Your task to perform on an android device: add a contact in the contacts app Image 0: 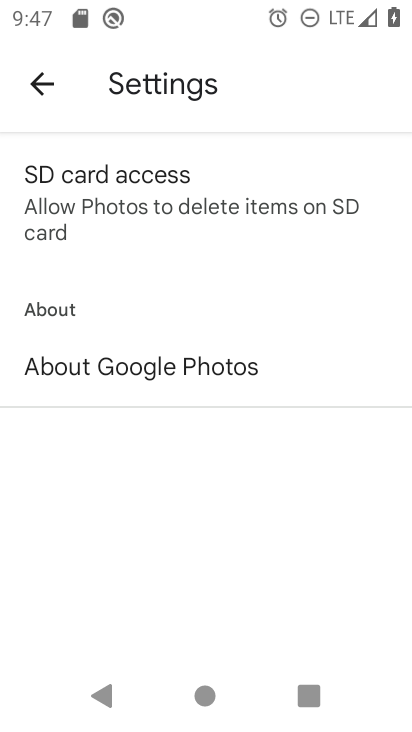
Step 0: press home button
Your task to perform on an android device: add a contact in the contacts app Image 1: 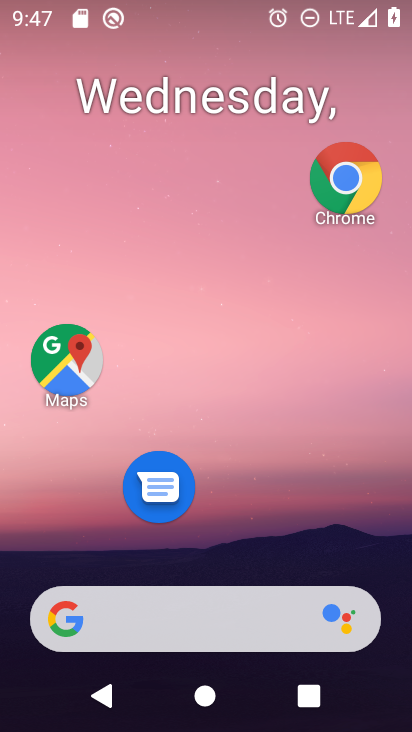
Step 1: drag from (179, 601) to (187, 40)
Your task to perform on an android device: add a contact in the contacts app Image 2: 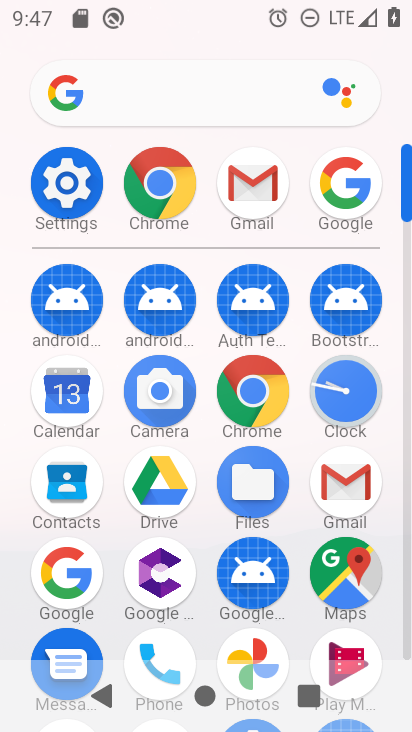
Step 2: drag from (220, 477) to (227, 148)
Your task to perform on an android device: add a contact in the contacts app Image 3: 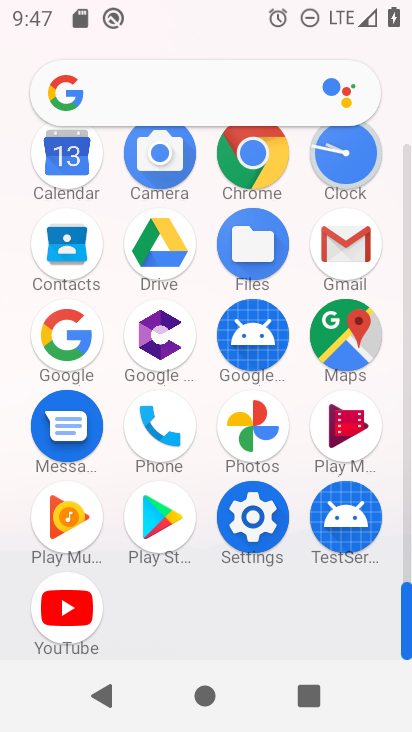
Step 3: click (51, 260)
Your task to perform on an android device: add a contact in the contacts app Image 4: 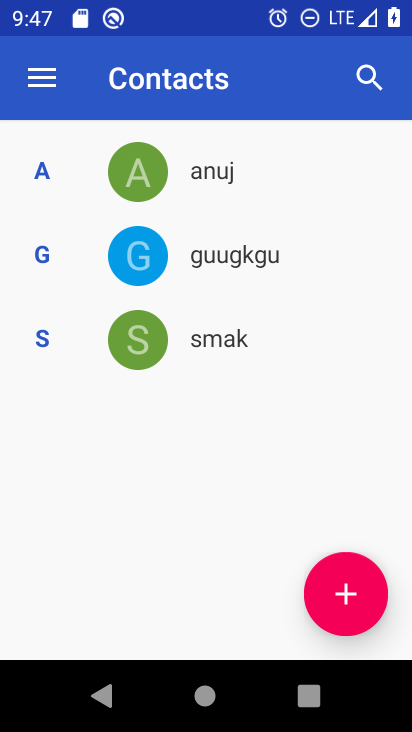
Step 4: click (351, 596)
Your task to perform on an android device: add a contact in the contacts app Image 5: 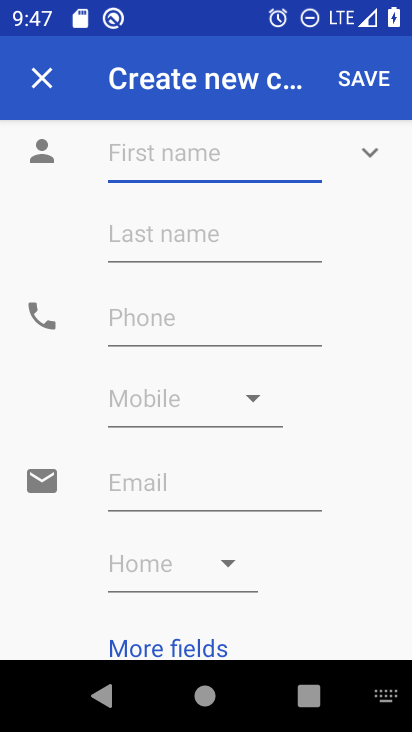
Step 5: type "kufyufrju"
Your task to perform on an android device: add a contact in the contacts app Image 6: 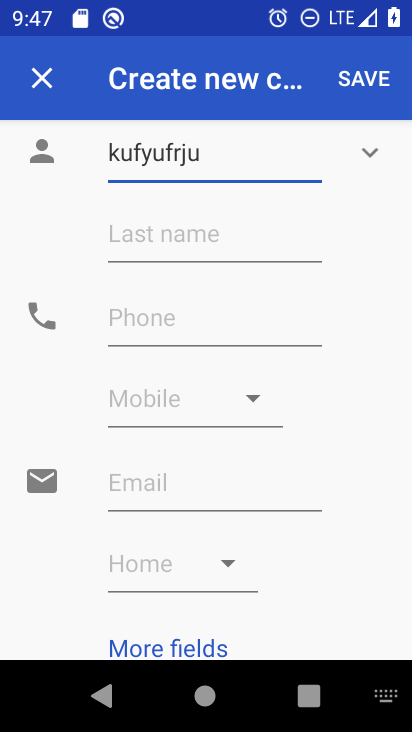
Step 6: click (267, 332)
Your task to perform on an android device: add a contact in the contacts app Image 7: 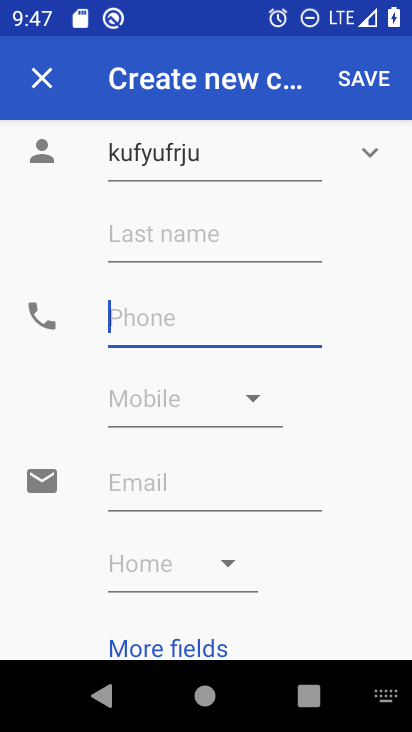
Step 7: type "9065537696"
Your task to perform on an android device: add a contact in the contacts app Image 8: 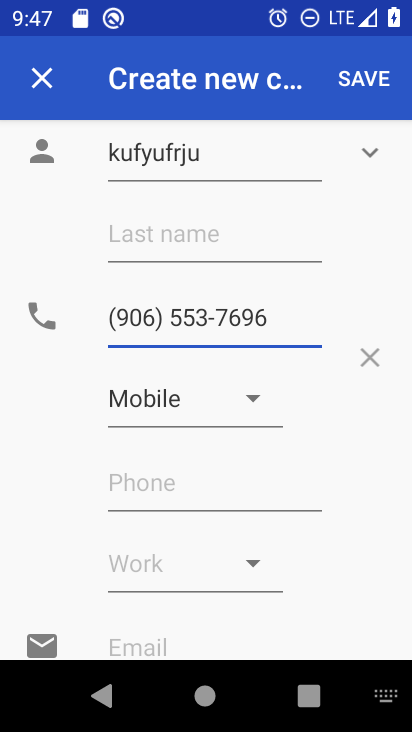
Step 8: click (363, 96)
Your task to perform on an android device: add a contact in the contacts app Image 9: 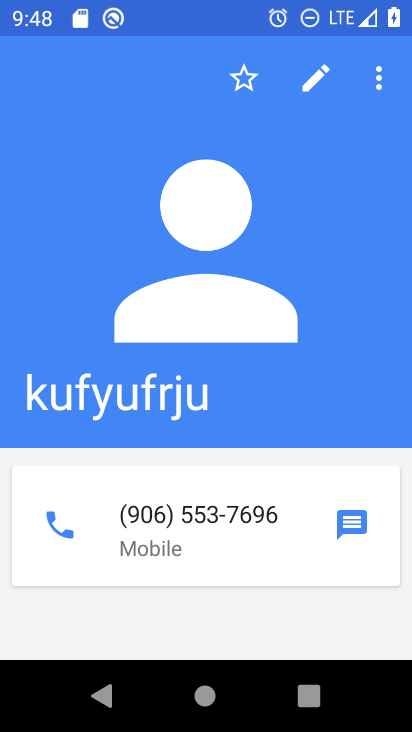
Step 9: task complete